Your task to perform on an android device: Search for Mexican restaurants on Maps Image 0: 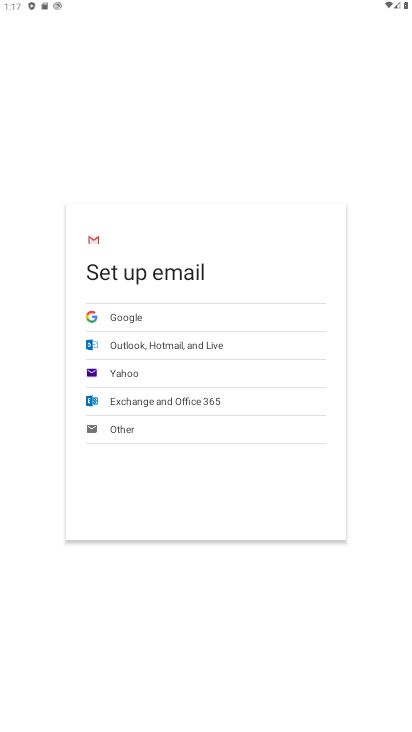
Step 0: press back button
Your task to perform on an android device: Search for Mexican restaurants on Maps Image 1: 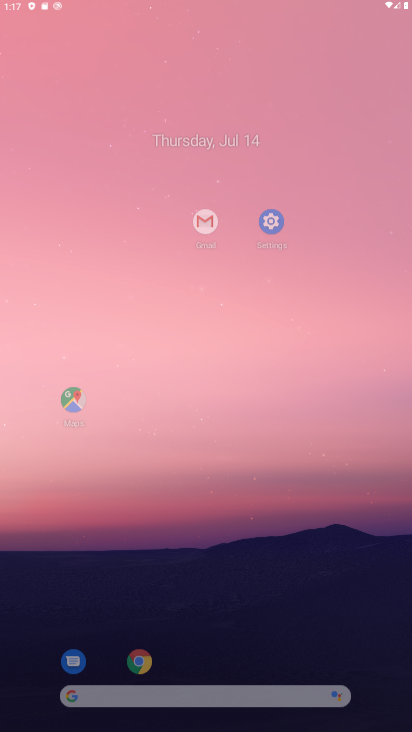
Step 1: press home button
Your task to perform on an android device: Search for Mexican restaurants on Maps Image 2: 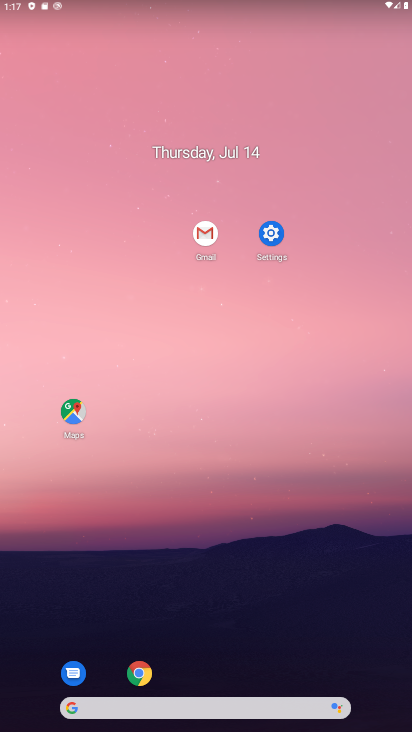
Step 2: click (69, 405)
Your task to perform on an android device: Search for Mexican restaurants on Maps Image 3: 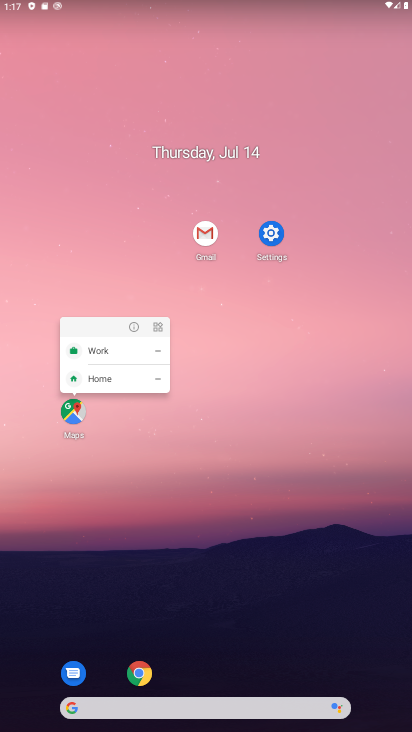
Step 3: click (83, 412)
Your task to perform on an android device: Search for Mexican restaurants on Maps Image 4: 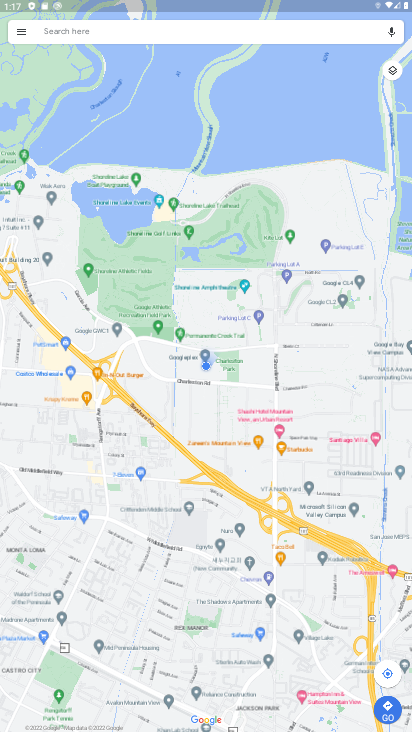
Step 4: click (219, 33)
Your task to perform on an android device: Search for Mexican restaurants on Maps Image 5: 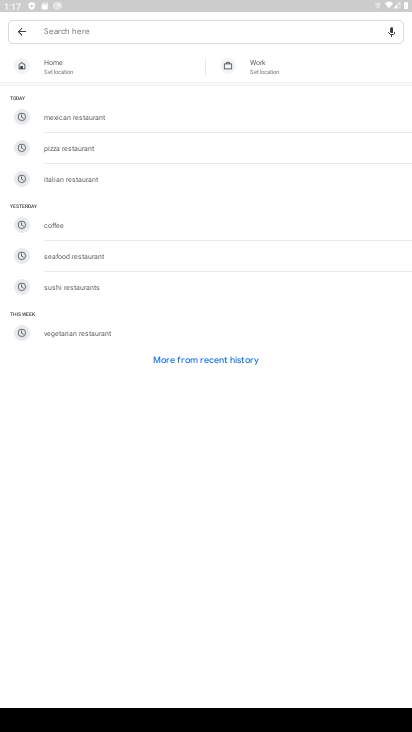
Step 5: click (102, 123)
Your task to perform on an android device: Search for Mexican restaurants on Maps Image 6: 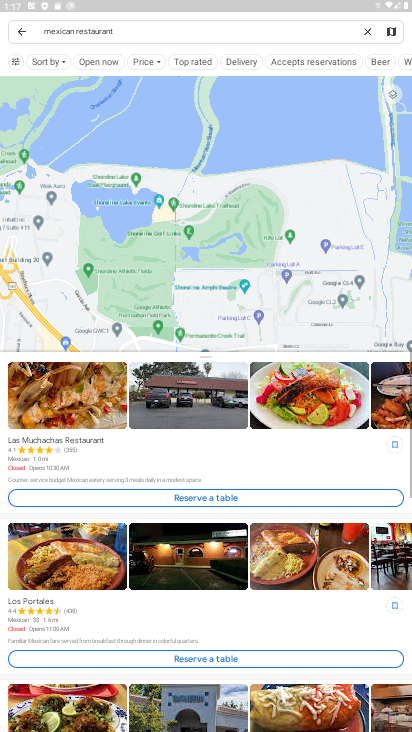
Step 6: task complete